Your task to perform on an android device: Is it going to rain this weekend? Image 0: 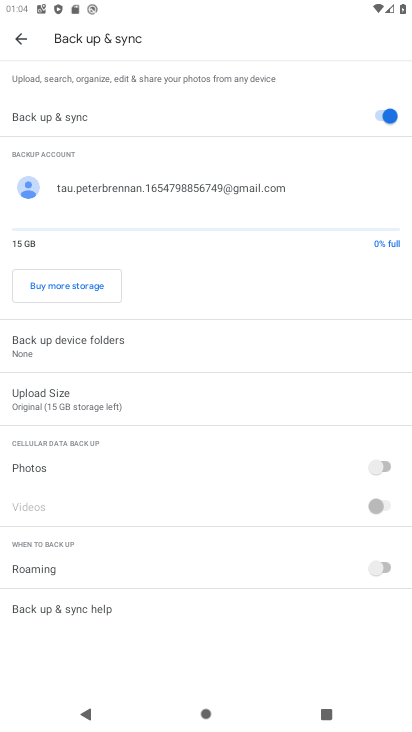
Step 0: press home button
Your task to perform on an android device: Is it going to rain this weekend? Image 1: 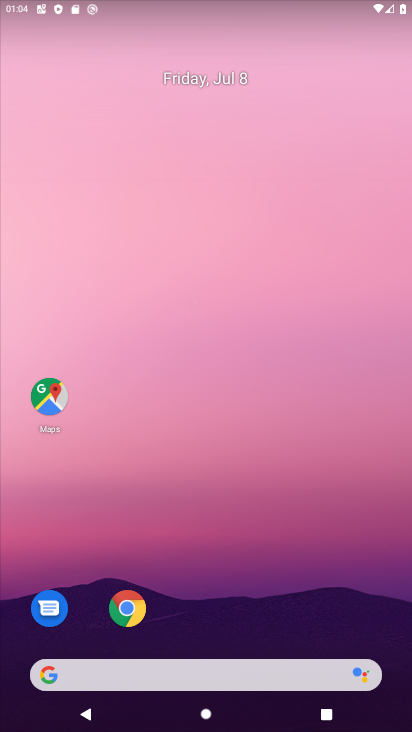
Step 1: click (133, 618)
Your task to perform on an android device: Is it going to rain this weekend? Image 2: 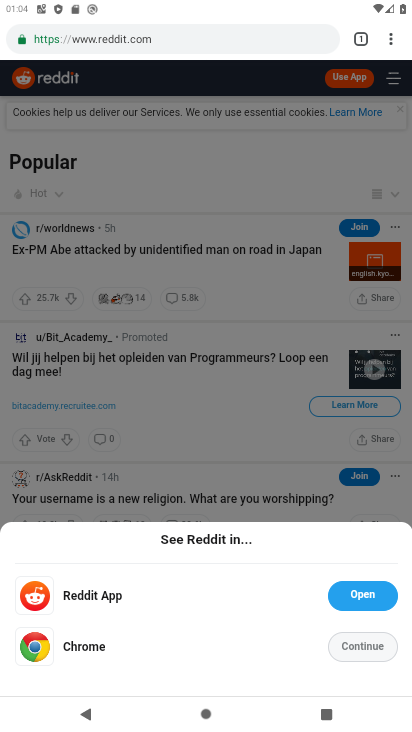
Step 2: click (203, 37)
Your task to perform on an android device: Is it going to rain this weekend? Image 3: 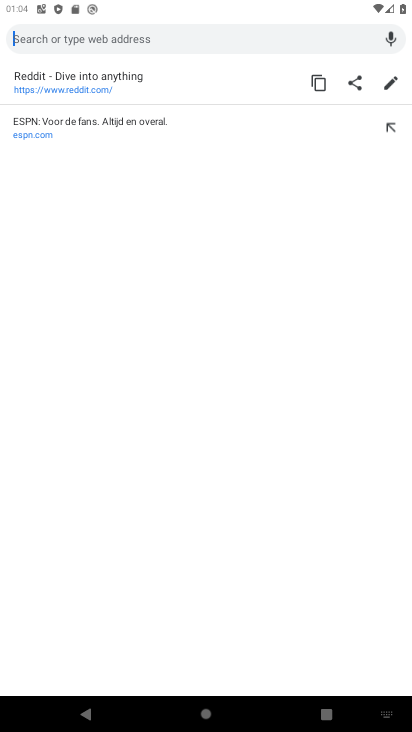
Step 3: type "Is it going to rain this weekend?"
Your task to perform on an android device: Is it going to rain this weekend? Image 4: 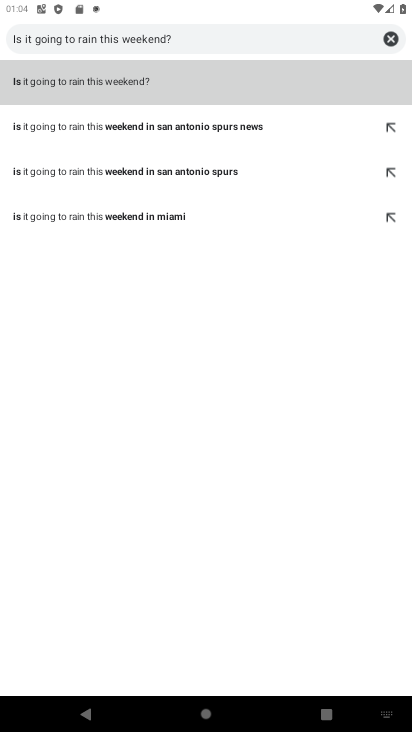
Step 4: click (57, 83)
Your task to perform on an android device: Is it going to rain this weekend? Image 5: 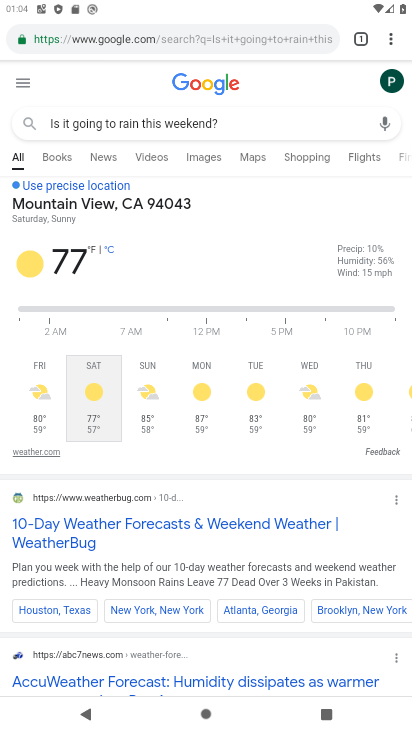
Step 5: task complete